Your task to perform on an android device: Go to Yahoo.com Image 0: 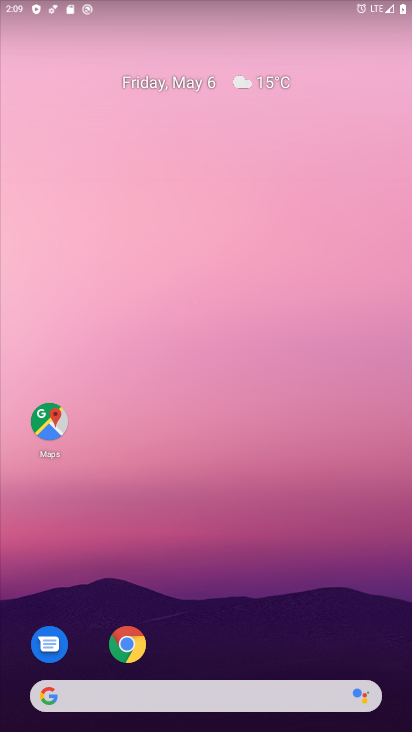
Step 0: drag from (242, 628) to (240, 71)
Your task to perform on an android device: Go to Yahoo.com Image 1: 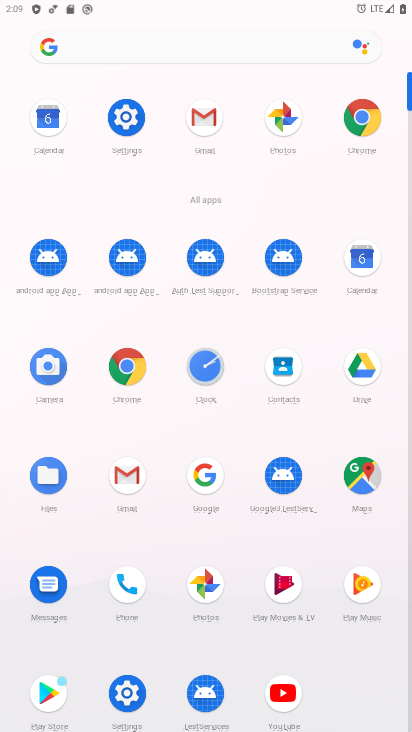
Step 1: click (367, 124)
Your task to perform on an android device: Go to Yahoo.com Image 2: 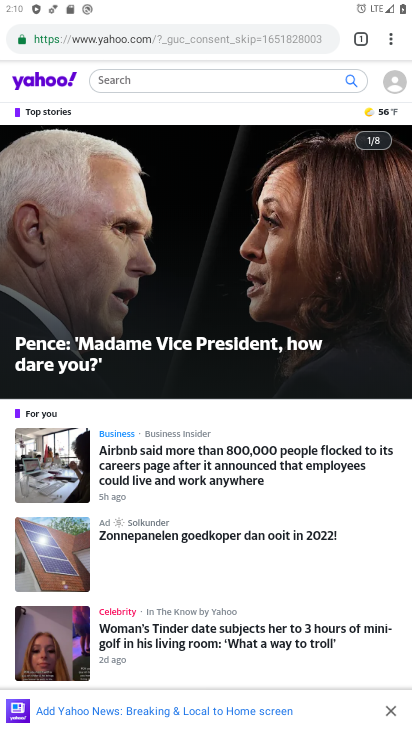
Step 2: task complete